Your task to perform on an android device: toggle translation in the chrome app Image 0: 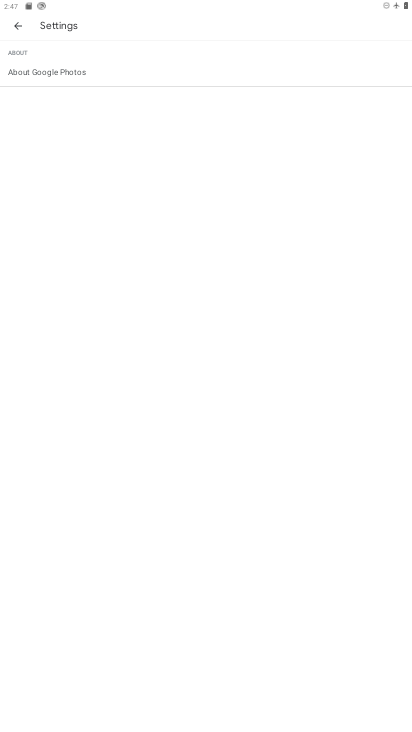
Step 0: press home button
Your task to perform on an android device: toggle translation in the chrome app Image 1: 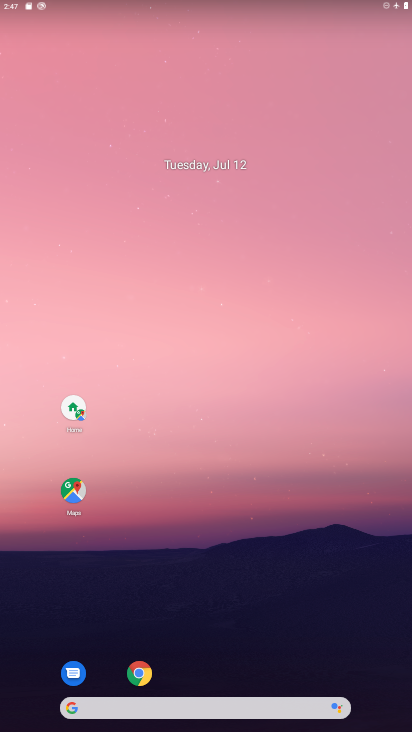
Step 1: drag from (268, 587) to (254, 356)
Your task to perform on an android device: toggle translation in the chrome app Image 2: 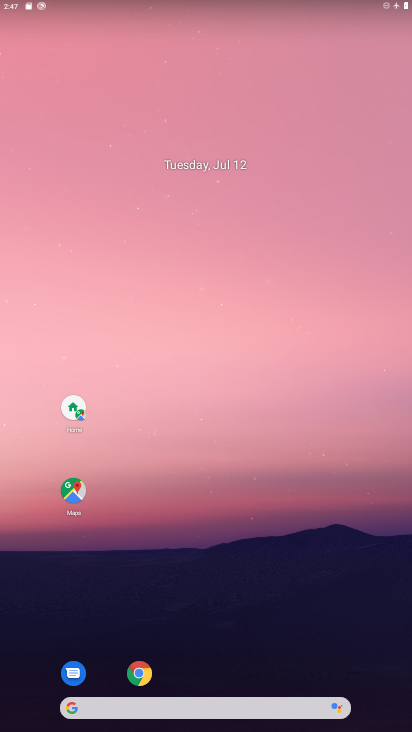
Step 2: drag from (241, 571) to (228, 314)
Your task to perform on an android device: toggle translation in the chrome app Image 3: 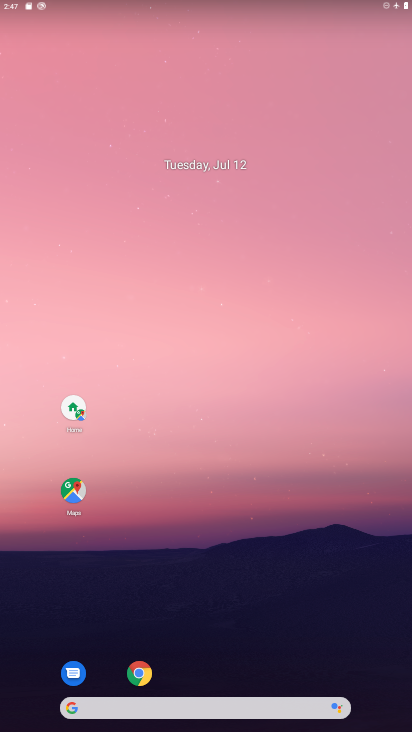
Step 3: drag from (193, 616) to (204, 320)
Your task to perform on an android device: toggle translation in the chrome app Image 4: 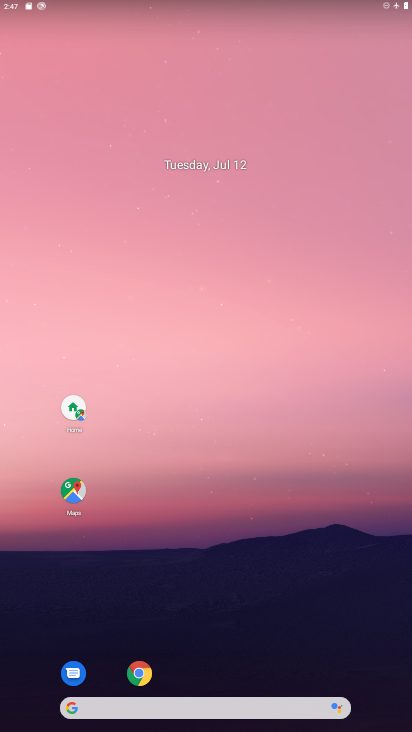
Step 4: drag from (172, 656) to (183, 240)
Your task to perform on an android device: toggle translation in the chrome app Image 5: 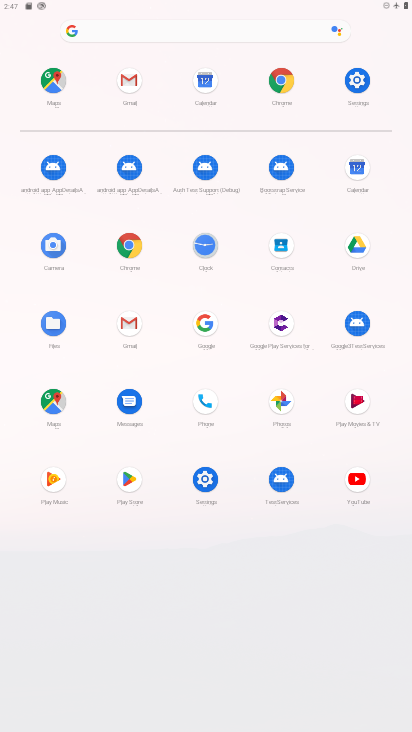
Step 5: click (283, 76)
Your task to perform on an android device: toggle translation in the chrome app Image 6: 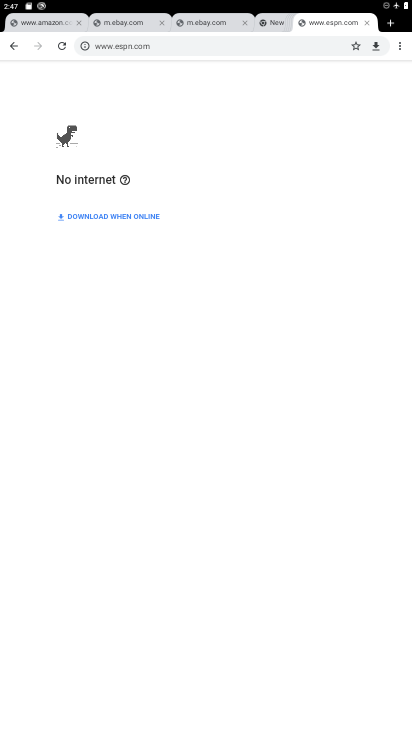
Step 6: click (404, 44)
Your task to perform on an android device: toggle translation in the chrome app Image 7: 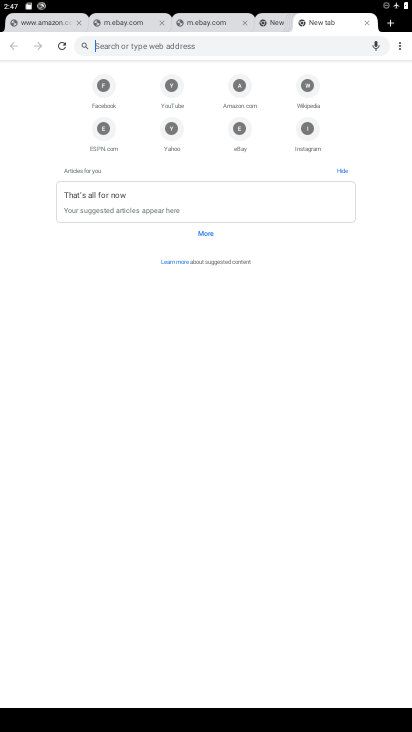
Step 7: click (404, 41)
Your task to perform on an android device: toggle translation in the chrome app Image 8: 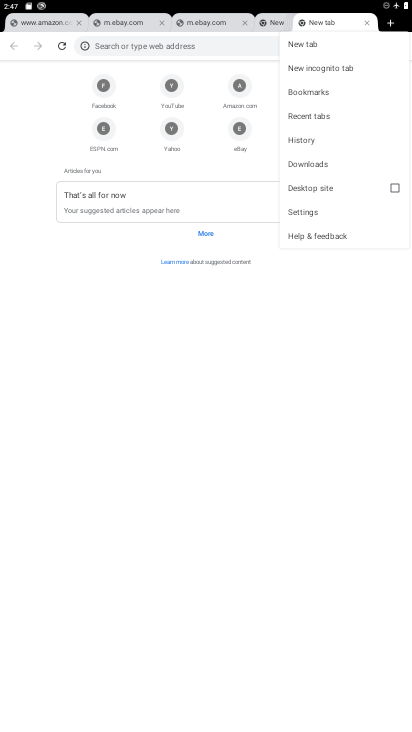
Step 8: click (326, 204)
Your task to perform on an android device: toggle translation in the chrome app Image 9: 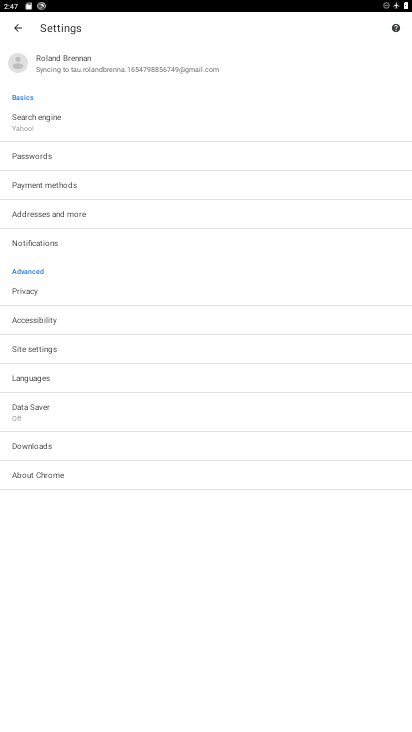
Step 9: click (56, 375)
Your task to perform on an android device: toggle translation in the chrome app Image 10: 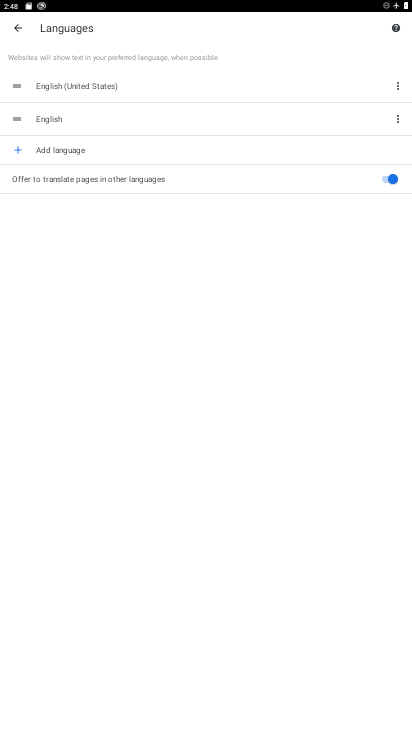
Step 10: click (384, 180)
Your task to perform on an android device: toggle translation in the chrome app Image 11: 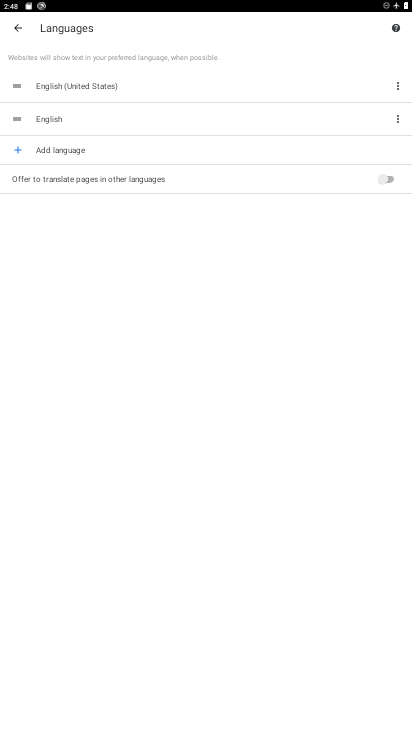
Step 11: task complete